Your task to perform on an android device: remove spam from my inbox in the gmail app Image 0: 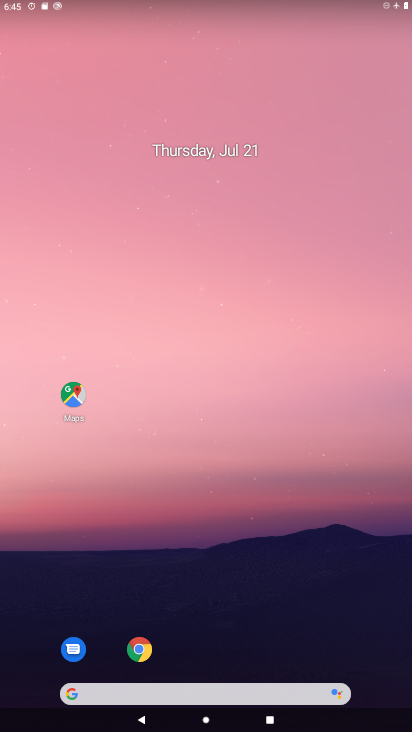
Step 0: drag from (354, 656) to (221, 36)
Your task to perform on an android device: remove spam from my inbox in the gmail app Image 1: 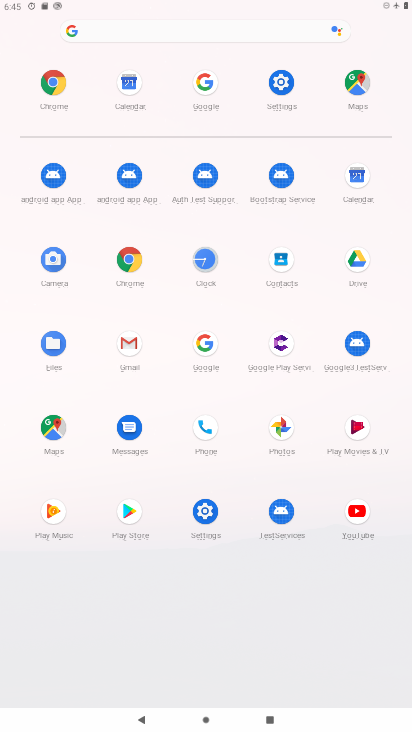
Step 1: click (134, 346)
Your task to perform on an android device: remove spam from my inbox in the gmail app Image 2: 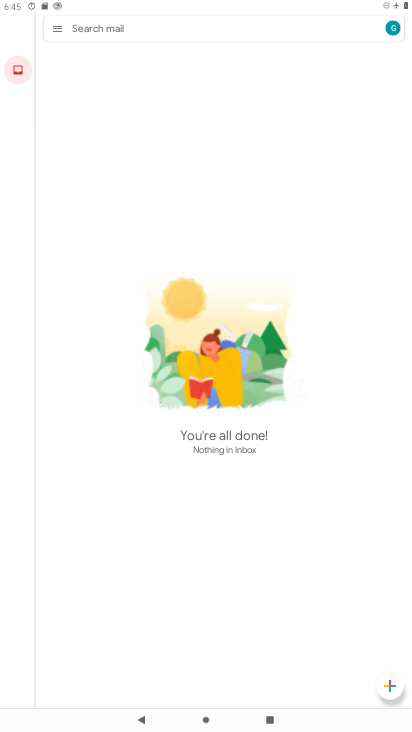
Step 2: task complete